Your task to perform on an android device: Open the stopwatch Image 0: 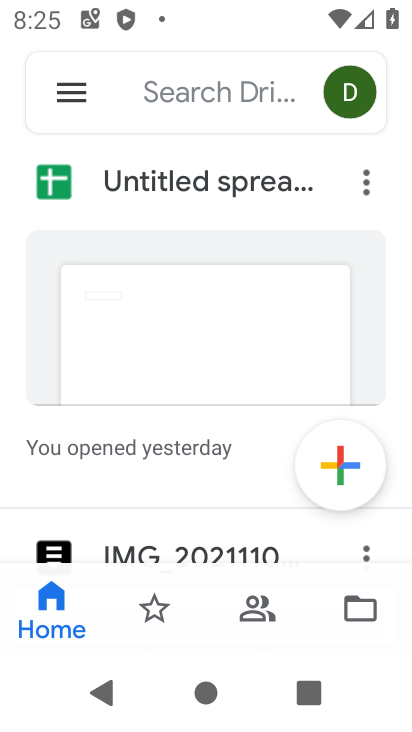
Step 0: press home button
Your task to perform on an android device: Open the stopwatch Image 1: 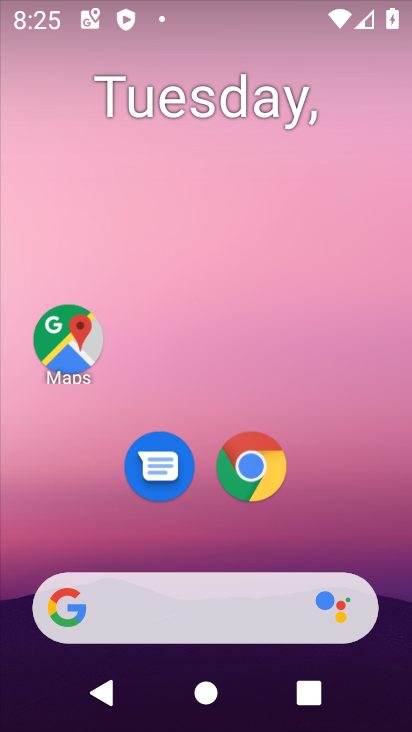
Step 1: drag from (197, 537) to (202, 144)
Your task to perform on an android device: Open the stopwatch Image 2: 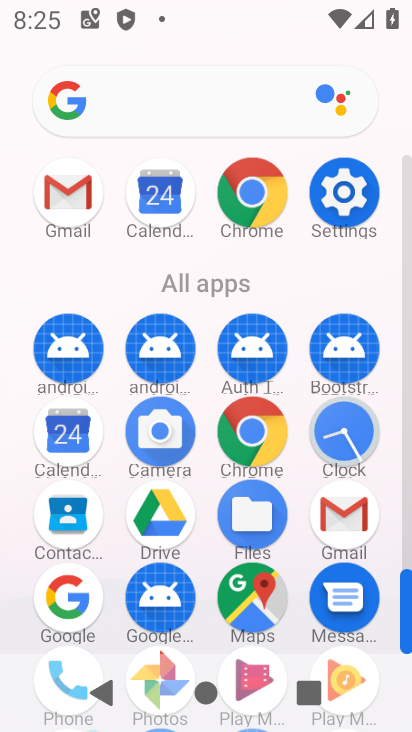
Step 2: click (347, 427)
Your task to perform on an android device: Open the stopwatch Image 3: 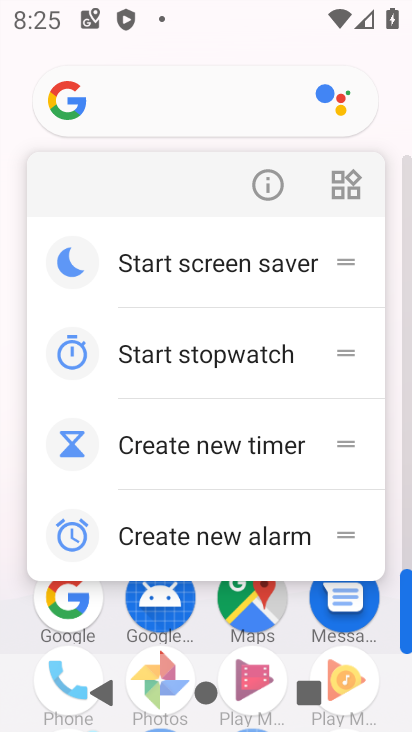
Step 3: click (234, 350)
Your task to perform on an android device: Open the stopwatch Image 4: 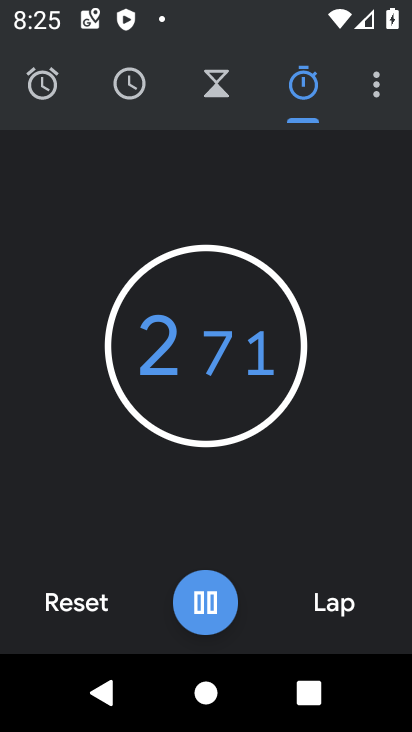
Step 4: task complete